Your task to perform on an android device: change timer sound Image 0: 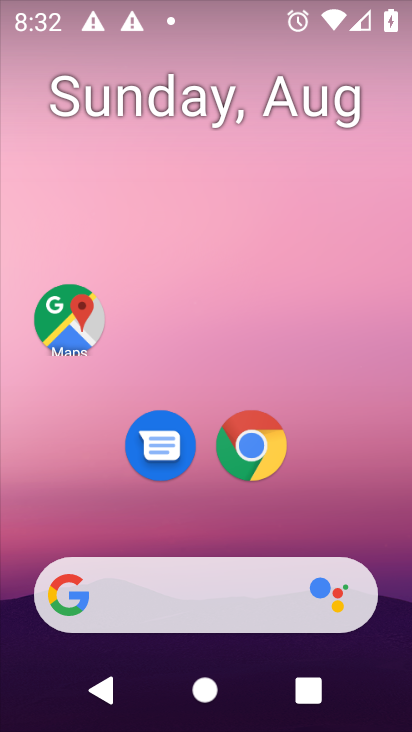
Step 0: press home button
Your task to perform on an android device: change timer sound Image 1: 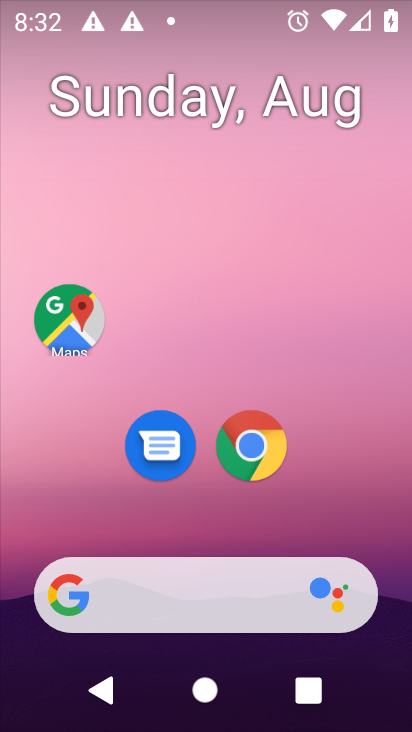
Step 1: drag from (221, 530) to (216, 90)
Your task to perform on an android device: change timer sound Image 2: 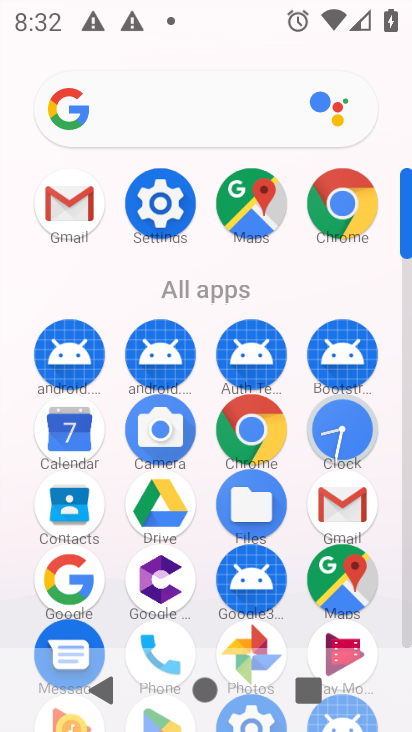
Step 2: click (339, 424)
Your task to perform on an android device: change timer sound Image 3: 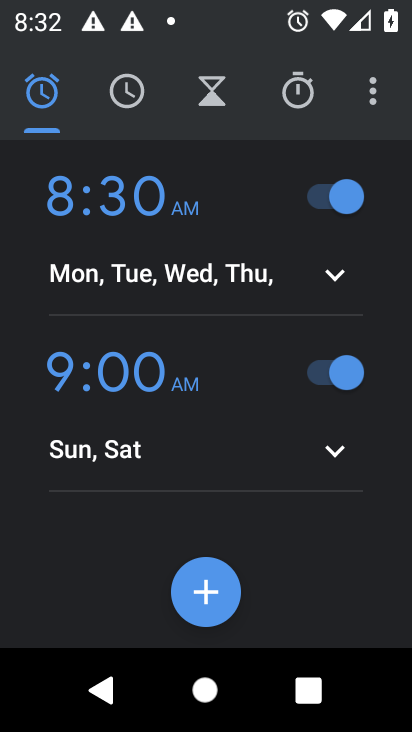
Step 3: click (373, 98)
Your task to perform on an android device: change timer sound Image 4: 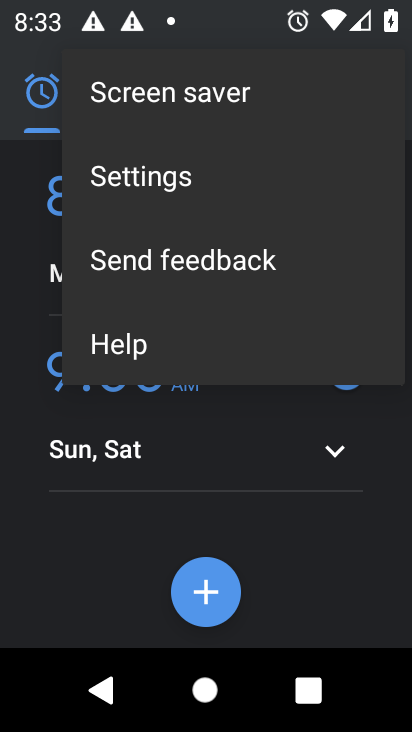
Step 4: click (201, 179)
Your task to perform on an android device: change timer sound Image 5: 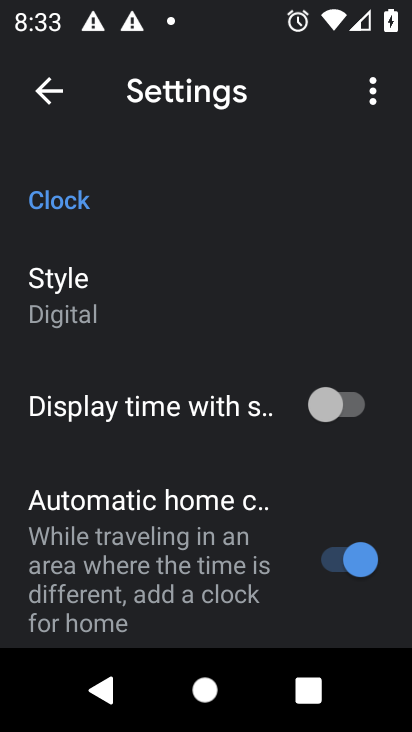
Step 5: drag from (181, 590) to (195, 114)
Your task to perform on an android device: change timer sound Image 6: 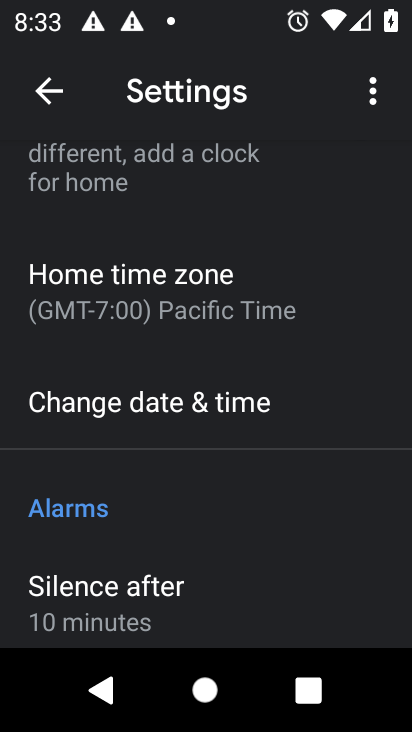
Step 6: drag from (194, 590) to (213, 124)
Your task to perform on an android device: change timer sound Image 7: 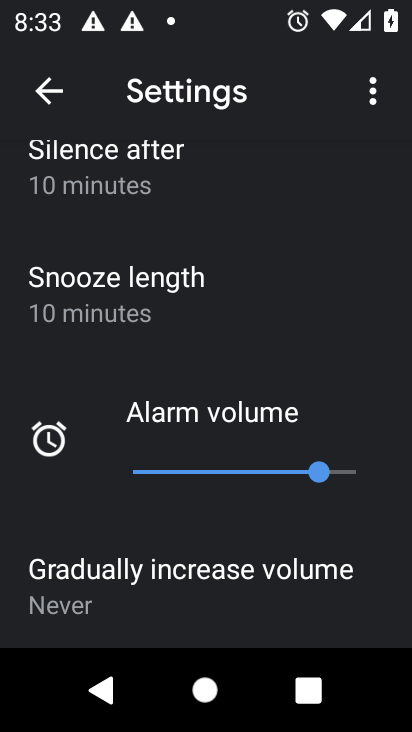
Step 7: drag from (220, 598) to (222, 125)
Your task to perform on an android device: change timer sound Image 8: 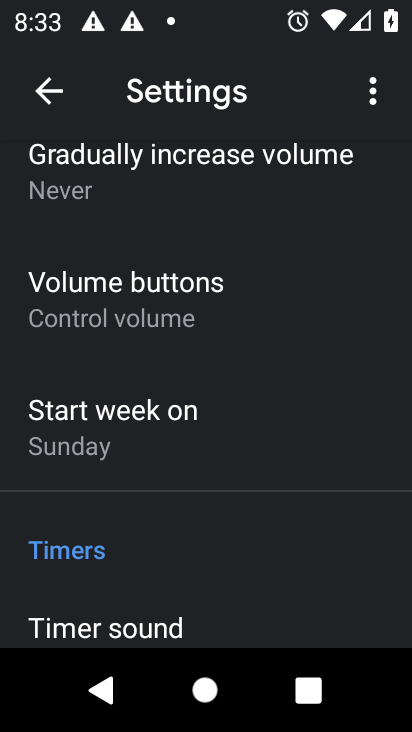
Step 8: click (206, 622)
Your task to perform on an android device: change timer sound Image 9: 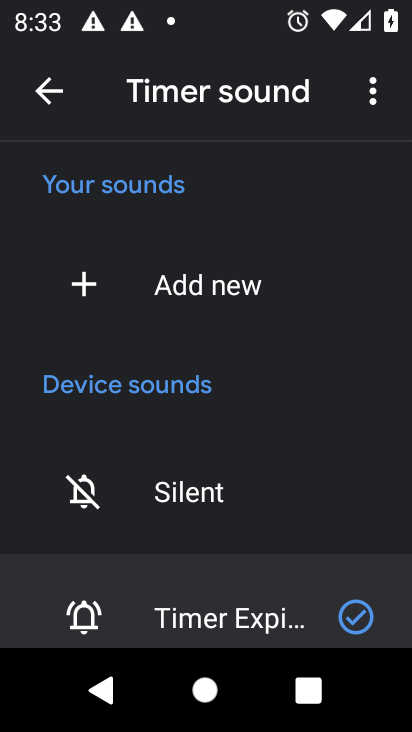
Step 9: drag from (247, 566) to (239, 191)
Your task to perform on an android device: change timer sound Image 10: 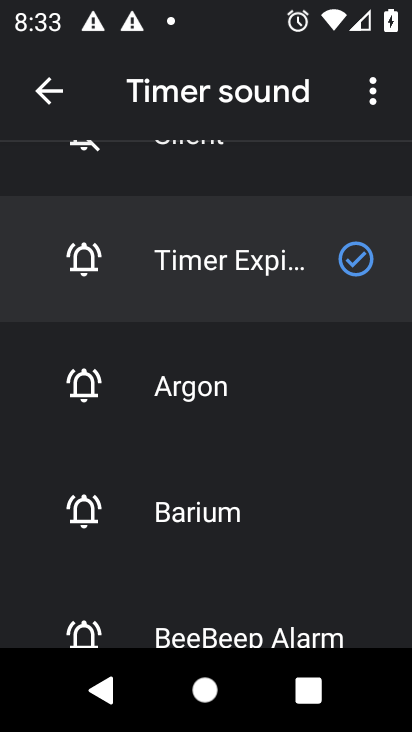
Step 10: click (267, 626)
Your task to perform on an android device: change timer sound Image 11: 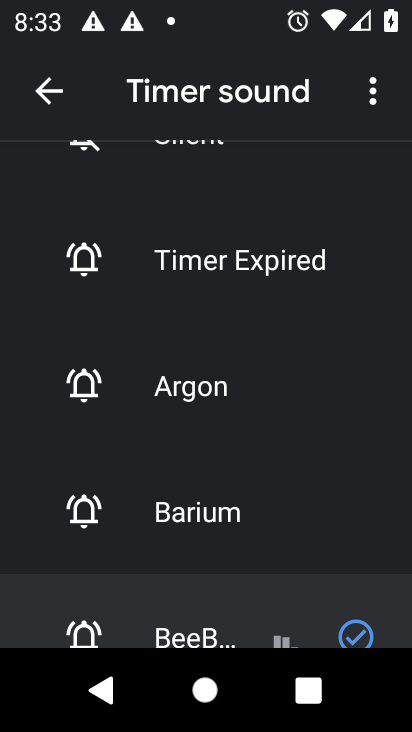
Step 11: task complete